Your task to perform on an android device: open app "PlayWell" (install if not already installed), go to login, and select forgot password Image 0: 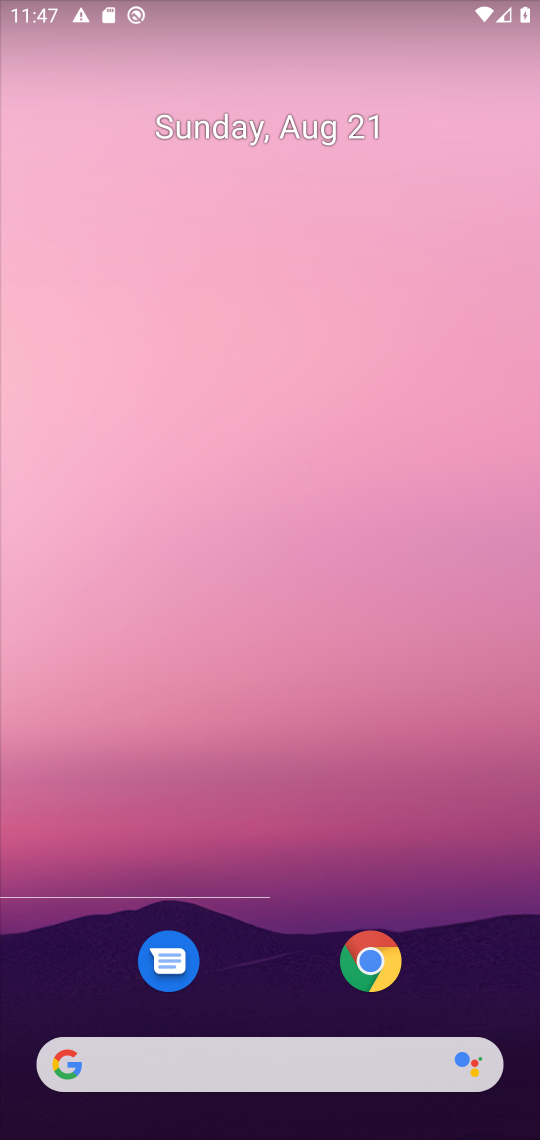
Step 0: press home button
Your task to perform on an android device: open app "PlayWell" (install if not already installed), go to login, and select forgot password Image 1: 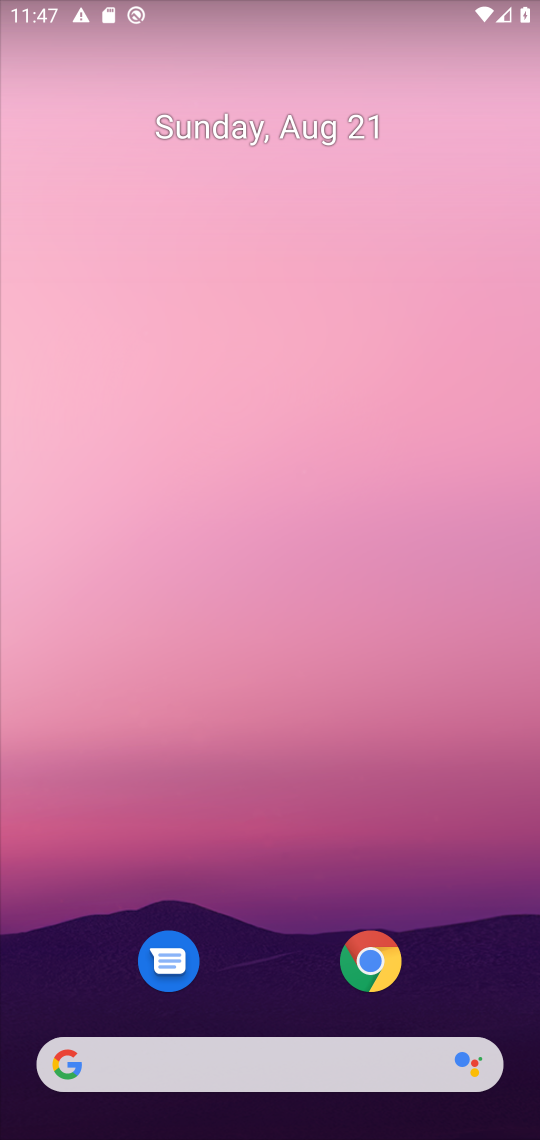
Step 1: press home button
Your task to perform on an android device: open app "PlayWell" (install if not already installed), go to login, and select forgot password Image 2: 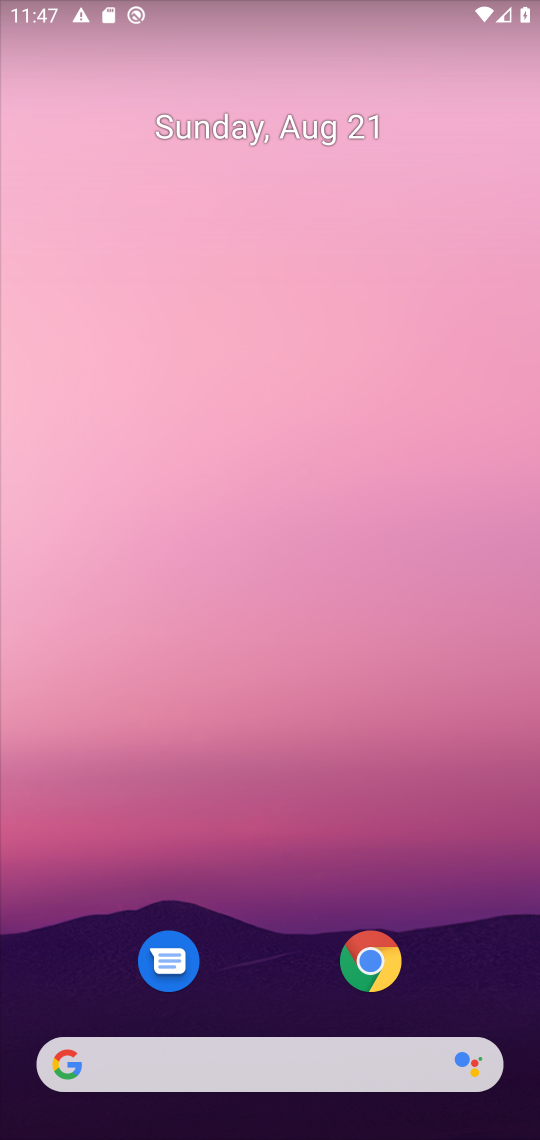
Step 2: drag from (455, 954) to (442, 172)
Your task to perform on an android device: open app "PlayWell" (install if not already installed), go to login, and select forgot password Image 3: 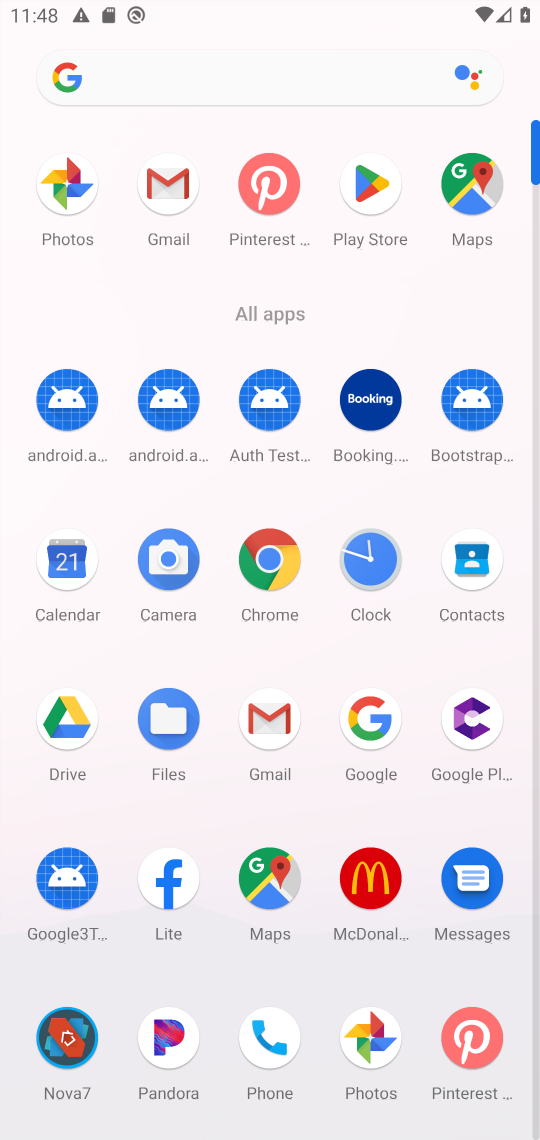
Step 3: click (373, 185)
Your task to perform on an android device: open app "PlayWell" (install if not already installed), go to login, and select forgot password Image 4: 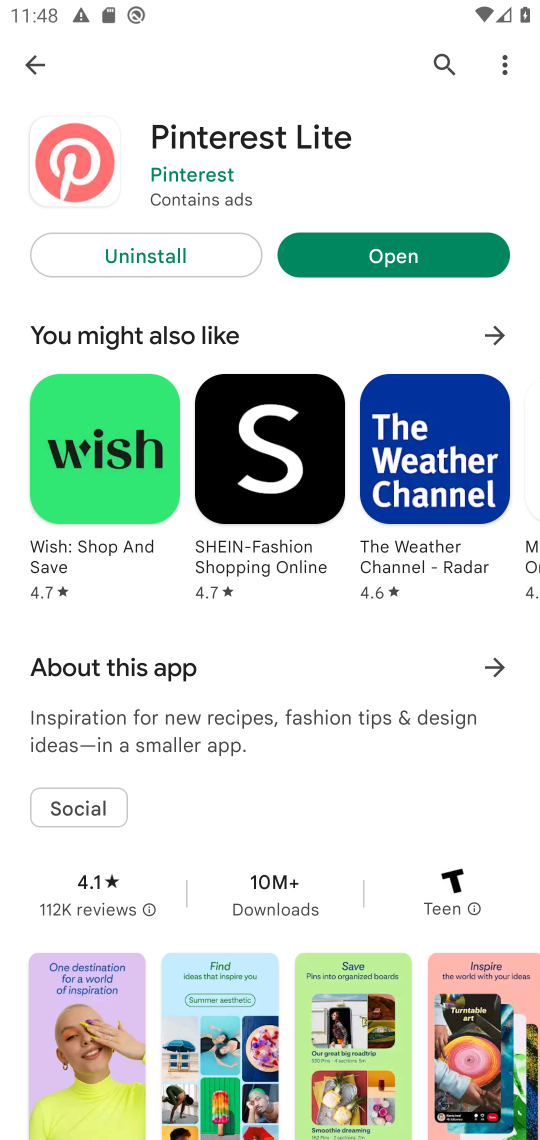
Step 4: press back button
Your task to perform on an android device: open app "PlayWell" (install if not already installed), go to login, and select forgot password Image 5: 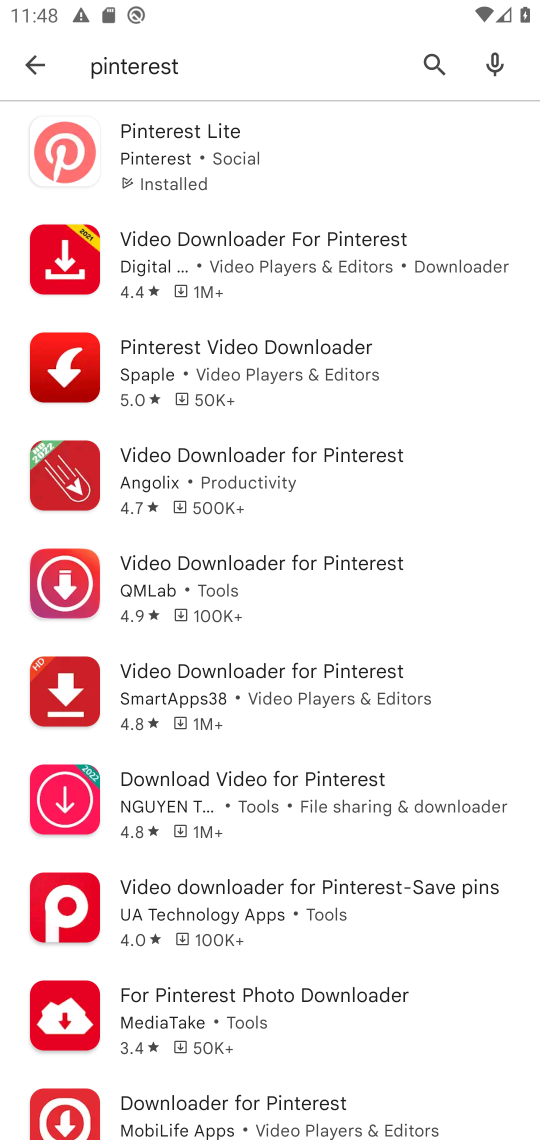
Step 5: press back button
Your task to perform on an android device: open app "PlayWell" (install if not already installed), go to login, and select forgot password Image 6: 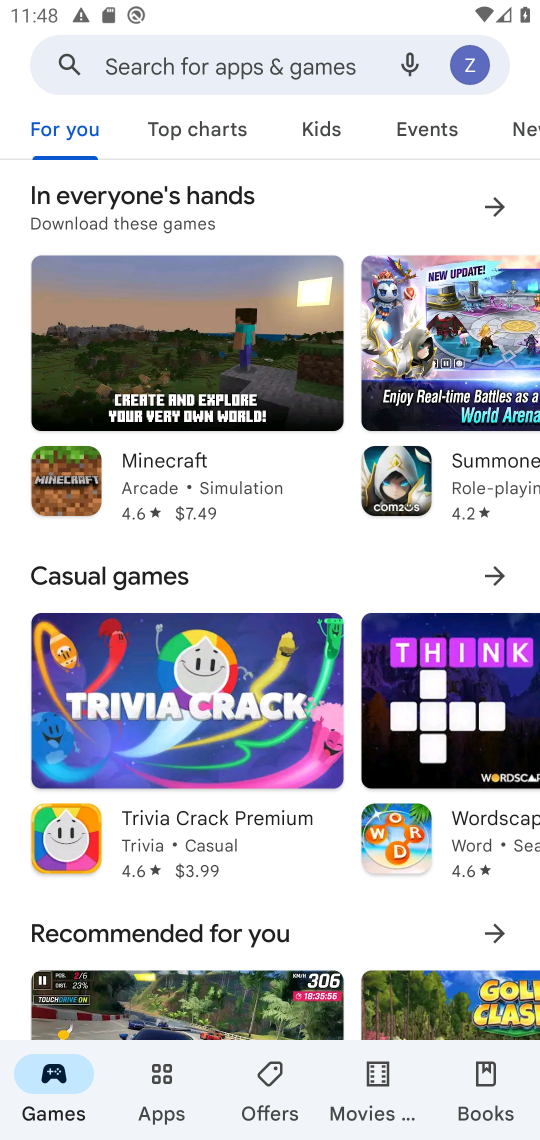
Step 6: click (283, 54)
Your task to perform on an android device: open app "PlayWell" (install if not already installed), go to login, and select forgot password Image 7: 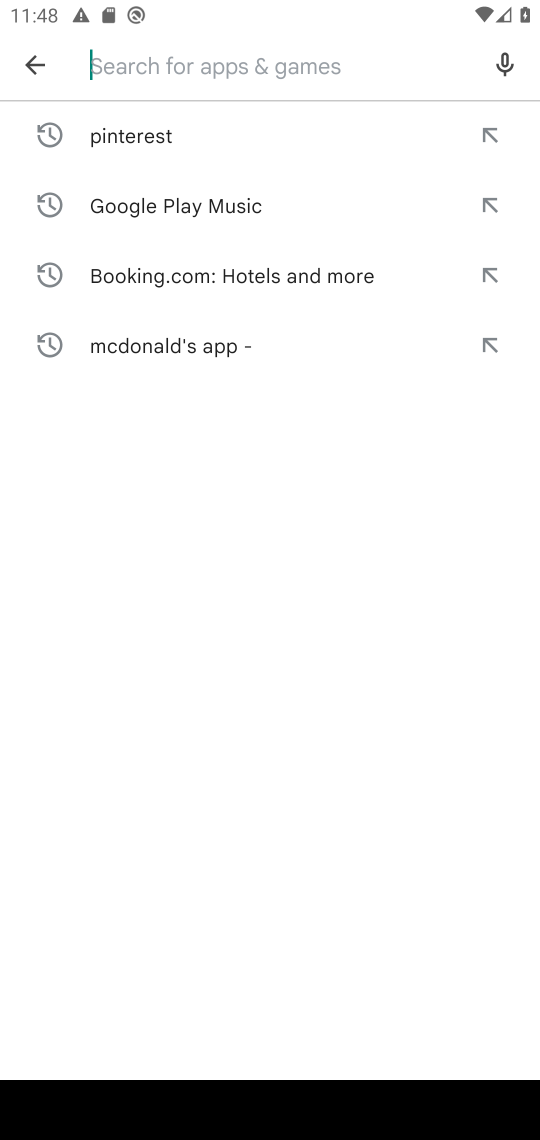
Step 7: press enter
Your task to perform on an android device: open app "PlayWell" (install if not already installed), go to login, and select forgot password Image 8: 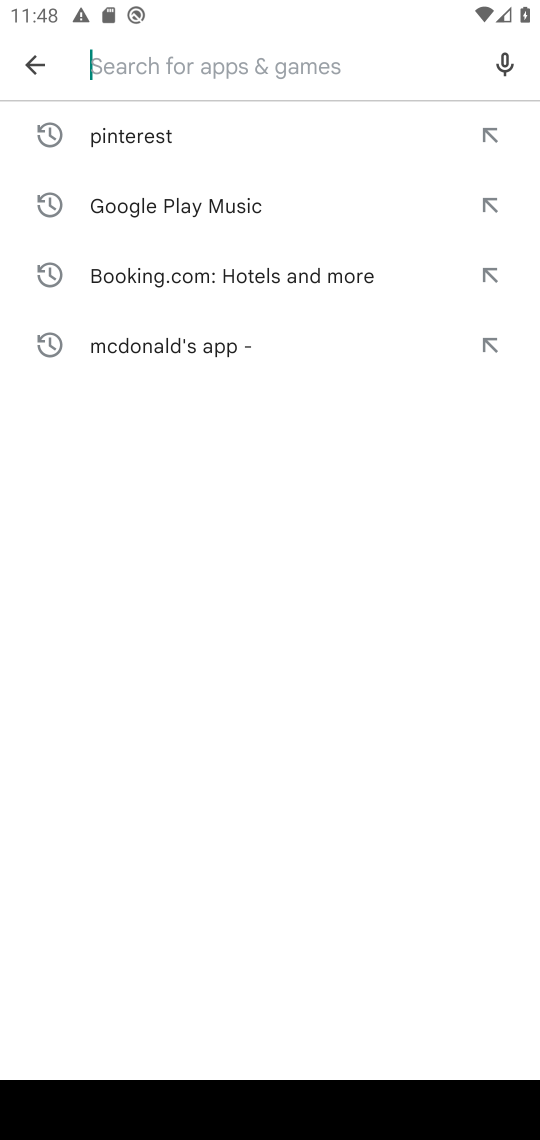
Step 8: type "play well"
Your task to perform on an android device: open app "PlayWell" (install if not already installed), go to login, and select forgot password Image 9: 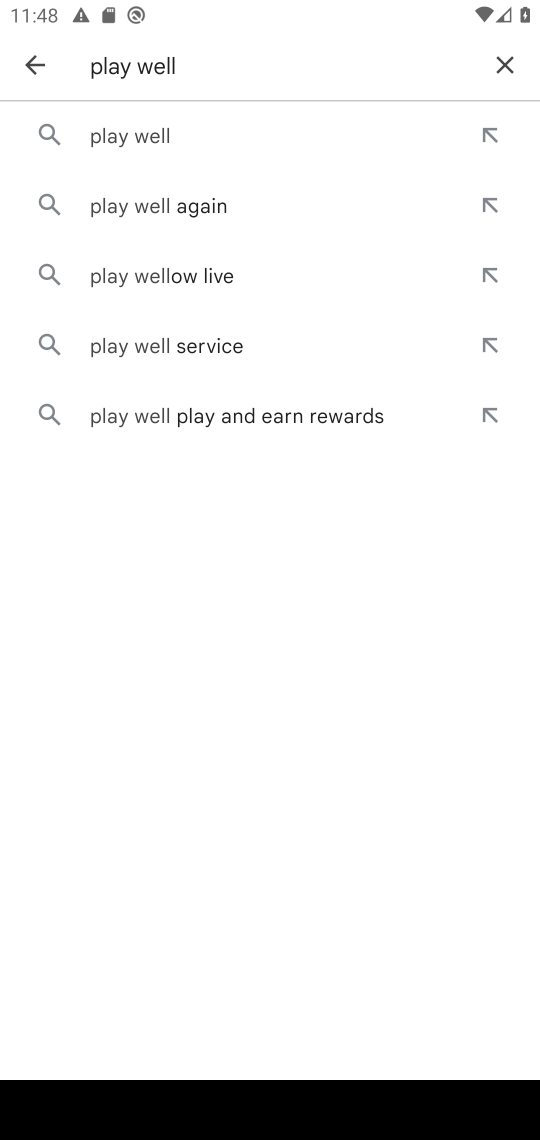
Step 9: click (201, 128)
Your task to perform on an android device: open app "PlayWell" (install if not already installed), go to login, and select forgot password Image 10: 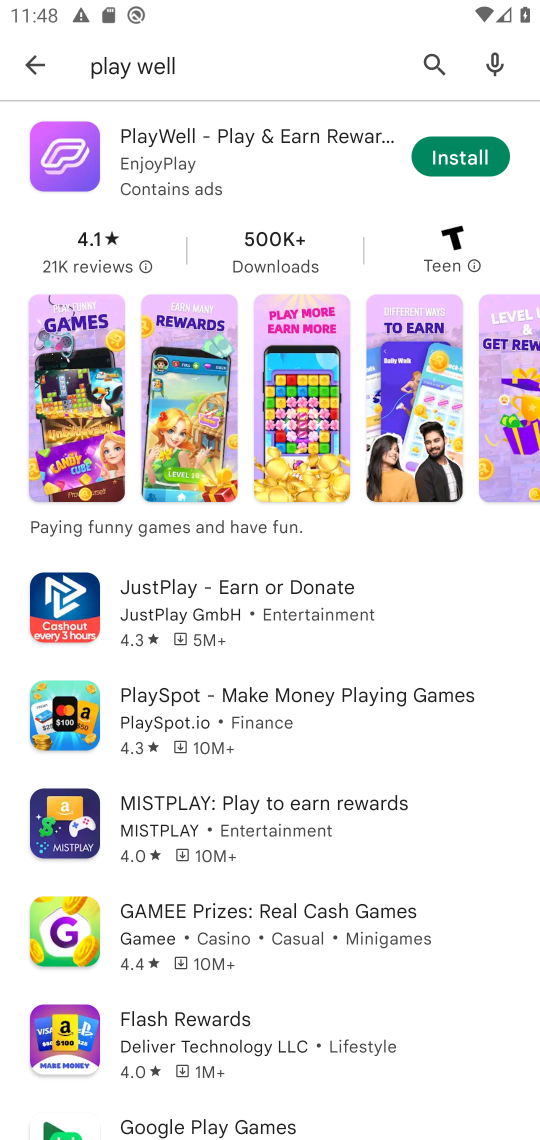
Step 10: click (458, 153)
Your task to perform on an android device: open app "PlayWell" (install if not already installed), go to login, and select forgot password Image 11: 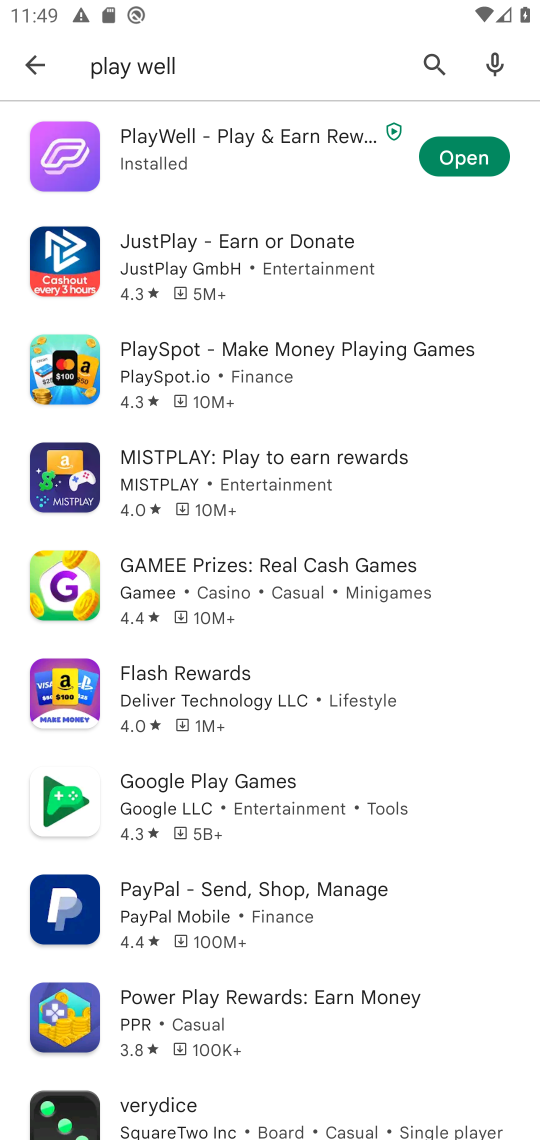
Step 11: click (465, 165)
Your task to perform on an android device: open app "PlayWell" (install if not already installed), go to login, and select forgot password Image 12: 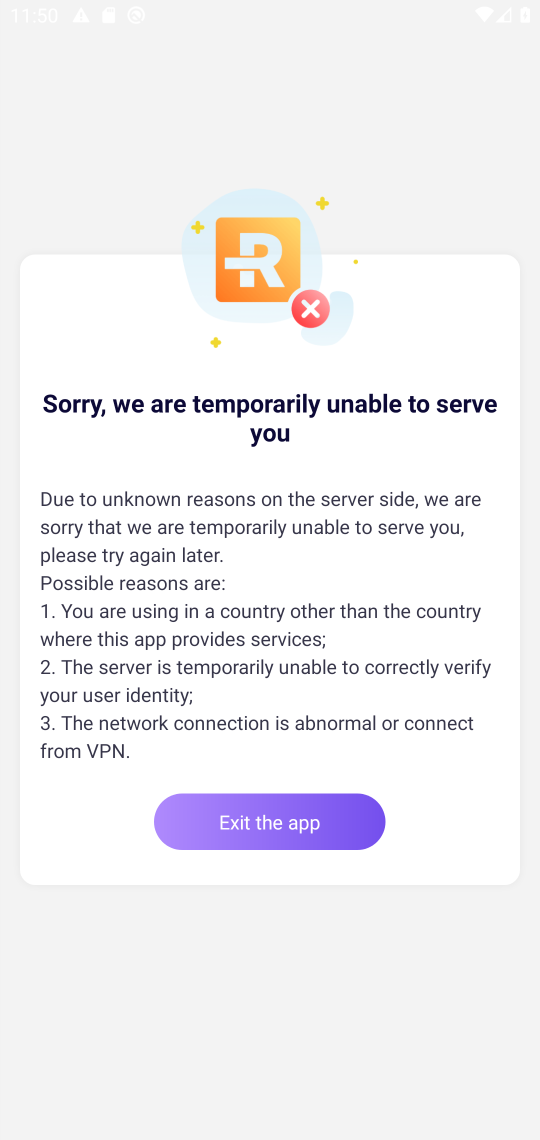
Step 12: task complete